Your task to perform on an android device: delete the emails in spam in the gmail app Image 0: 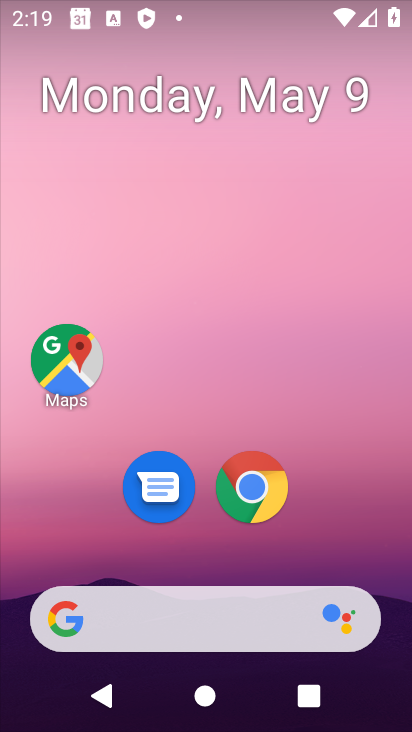
Step 0: drag from (290, 499) to (243, 57)
Your task to perform on an android device: delete the emails in spam in the gmail app Image 1: 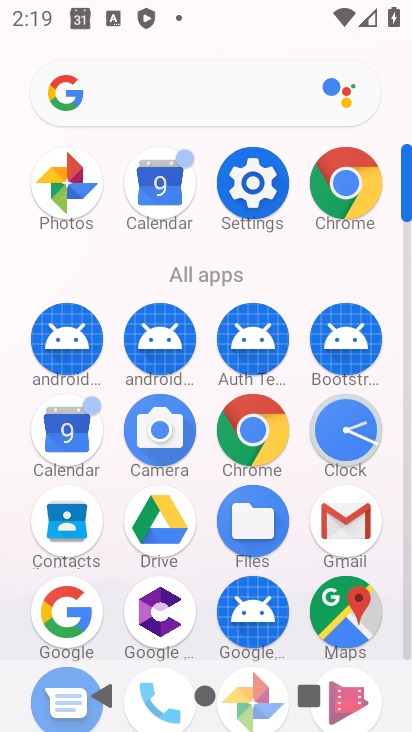
Step 1: click (340, 538)
Your task to perform on an android device: delete the emails in spam in the gmail app Image 2: 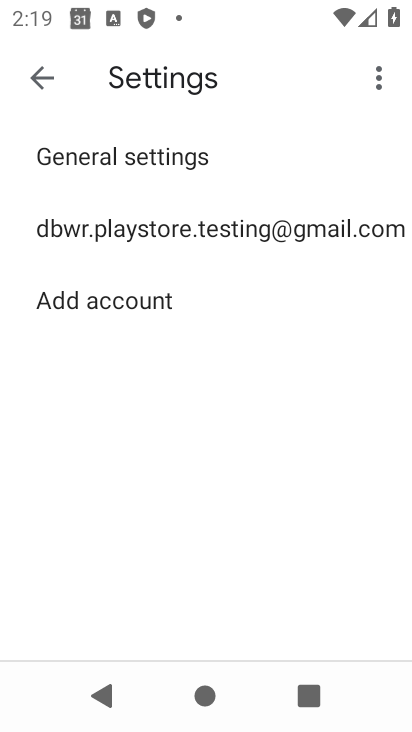
Step 2: click (31, 75)
Your task to perform on an android device: delete the emails in spam in the gmail app Image 3: 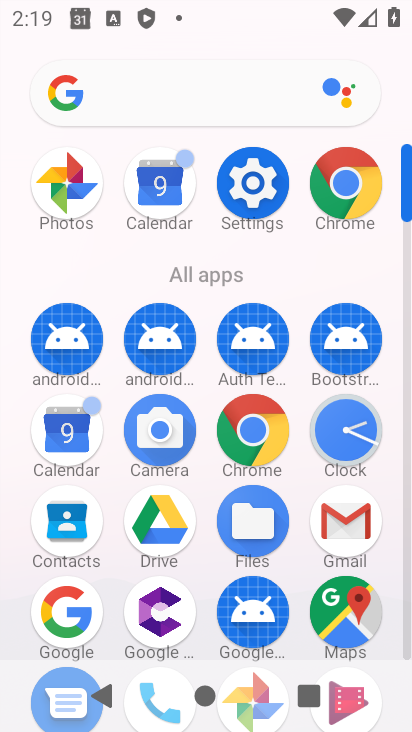
Step 3: click (357, 518)
Your task to perform on an android device: delete the emails in spam in the gmail app Image 4: 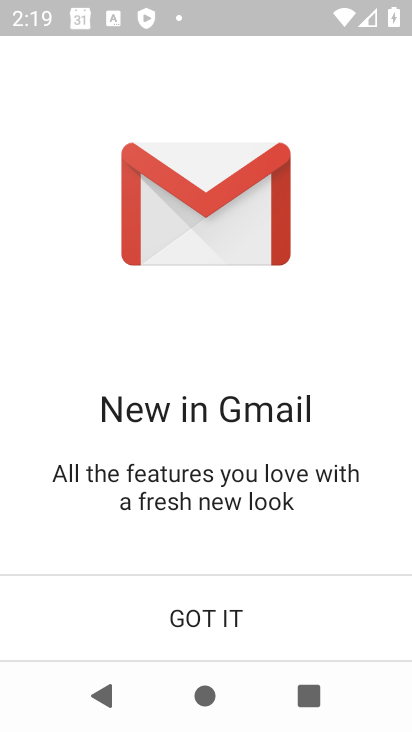
Step 4: click (256, 599)
Your task to perform on an android device: delete the emails in spam in the gmail app Image 5: 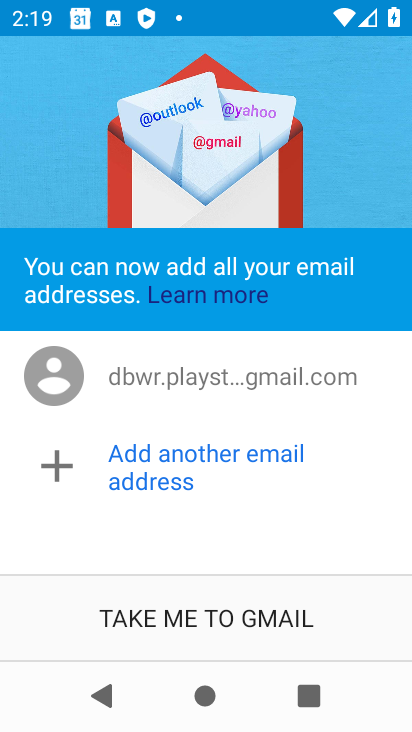
Step 5: click (256, 604)
Your task to perform on an android device: delete the emails in spam in the gmail app Image 6: 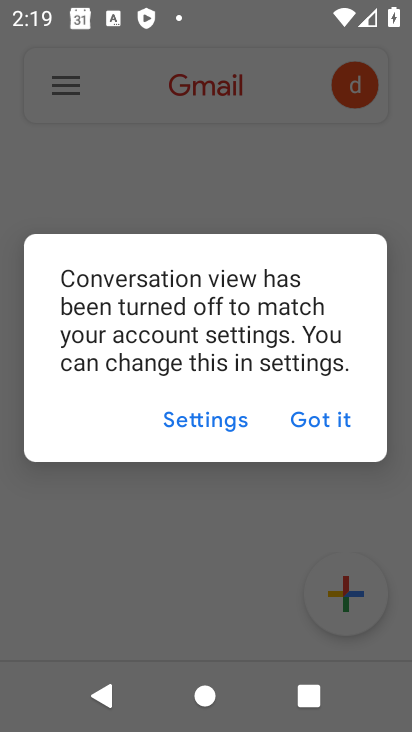
Step 6: click (335, 400)
Your task to perform on an android device: delete the emails in spam in the gmail app Image 7: 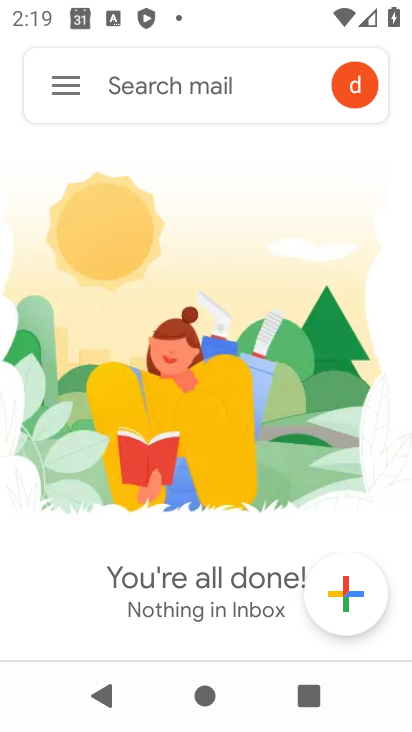
Step 7: click (61, 80)
Your task to perform on an android device: delete the emails in spam in the gmail app Image 8: 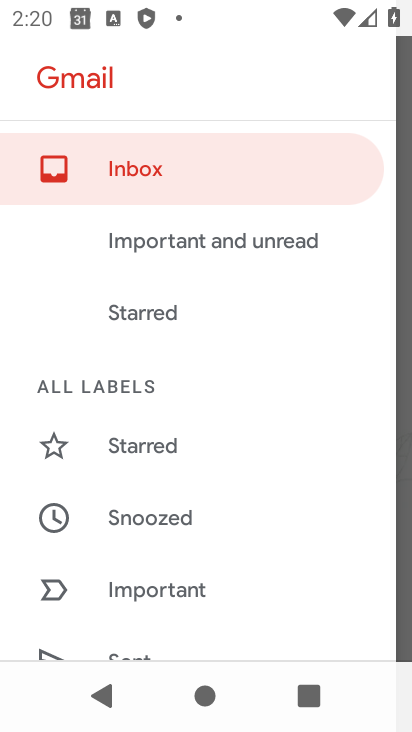
Step 8: drag from (216, 572) to (204, 135)
Your task to perform on an android device: delete the emails in spam in the gmail app Image 9: 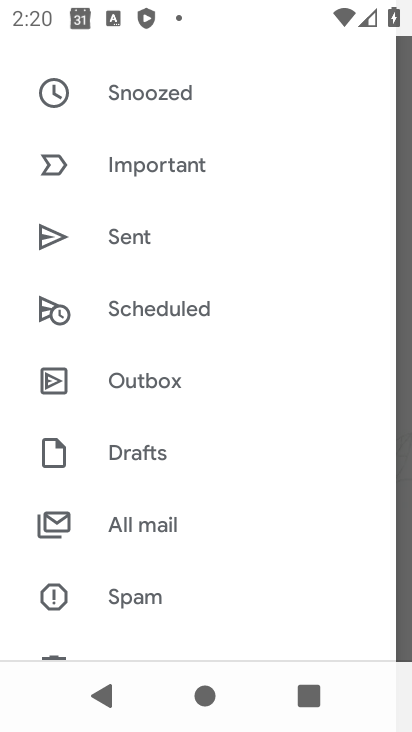
Step 9: click (171, 520)
Your task to perform on an android device: delete the emails in spam in the gmail app Image 10: 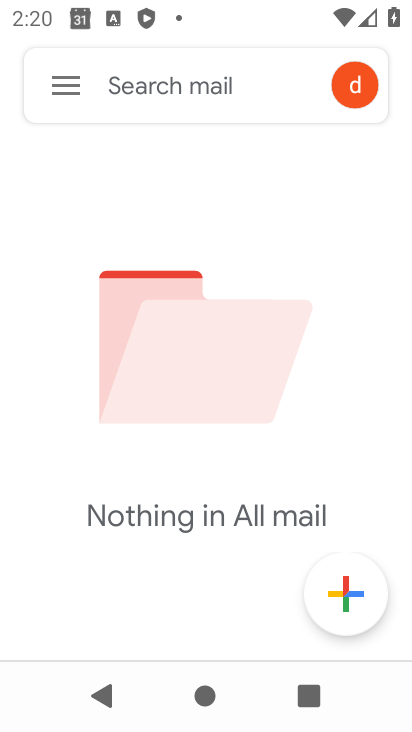
Step 10: task complete